Your task to perform on an android device: install app "Google Photos" Image 0: 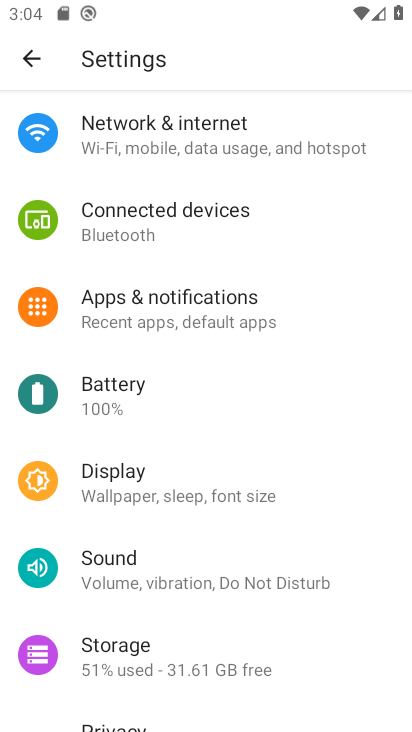
Step 0: press home button
Your task to perform on an android device: install app "Google Photos" Image 1: 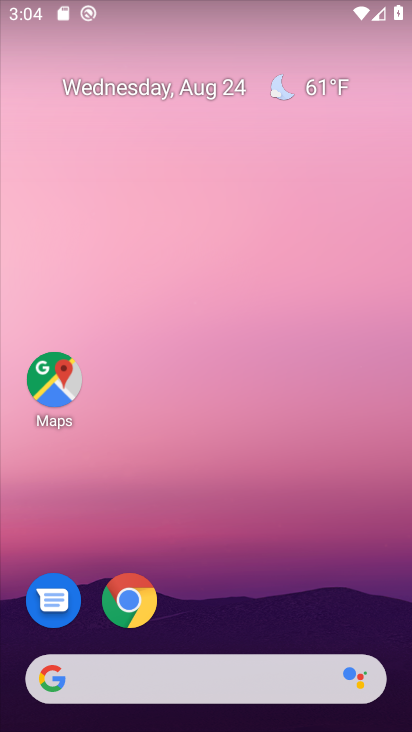
Step 1: drag from (248, 615) to (280, 66)
Your task to perform on an android device: install app "Google Photos" Image 2: 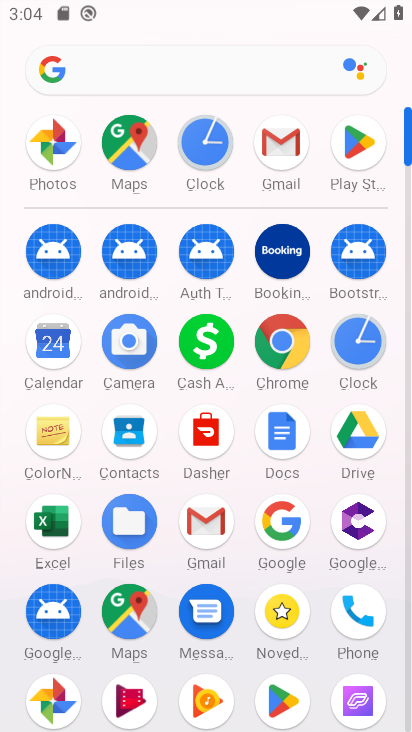
Step 2: click (363, 138)
Your task to perform on an android device: install app "Google Photos" Image 3: 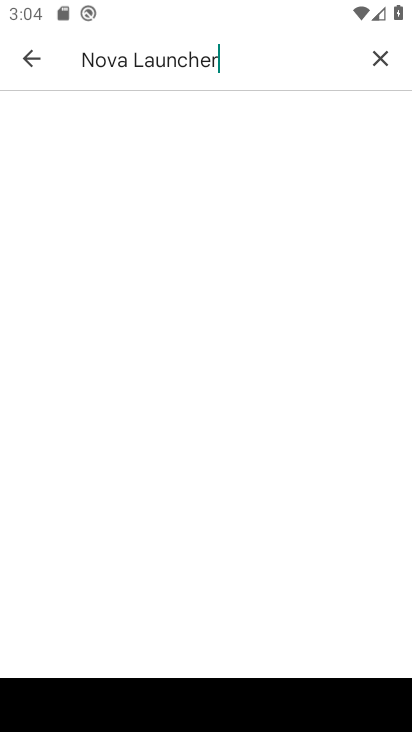
Step 3: click (376, 48)
Your task to perform on an android device: install app "Google Photos" Image 4: 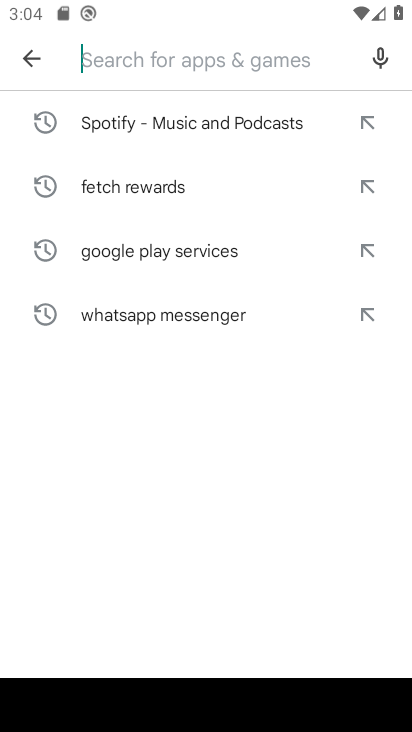
Step 4: click (106, 53)
Your task to perform on an android device: install app "Google Photos" Image 5: 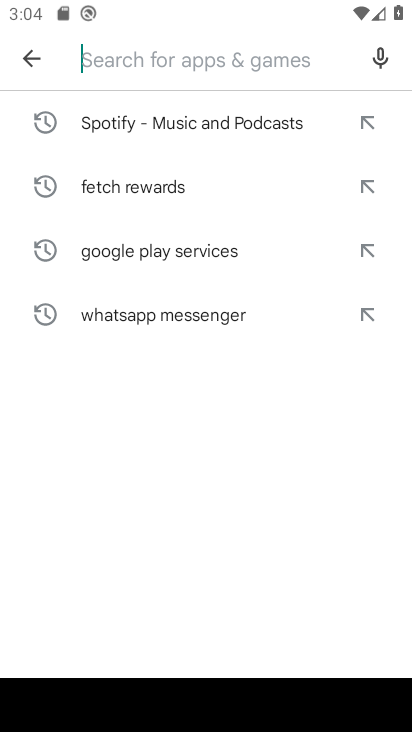
Step 5: click (89, 59)
Your task to perform on an android device: install app "Google Photos" Image 6: 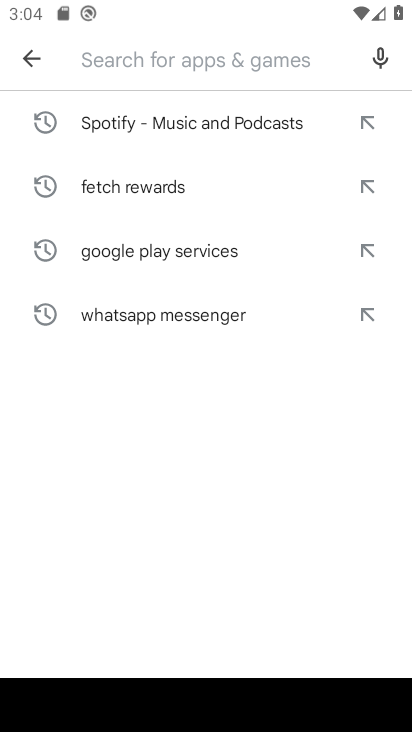
Step 6: type "Google Photos"
Your task to perform on an android device: install app "Google Photos" Image 7: 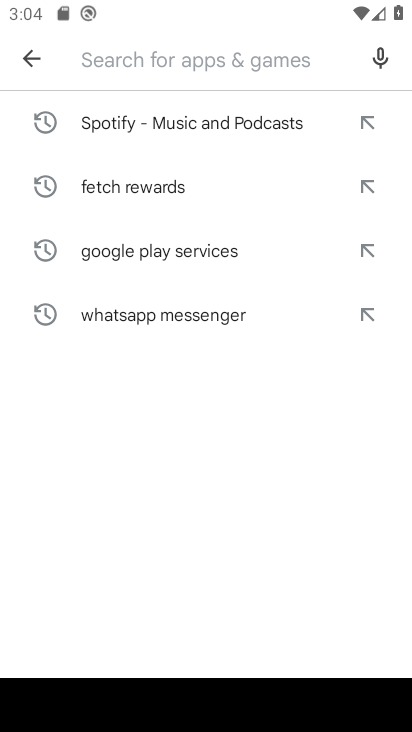
Step 7: click (148, 540)
Your task to perform on an android device: install app "Google Photos" Image 8: 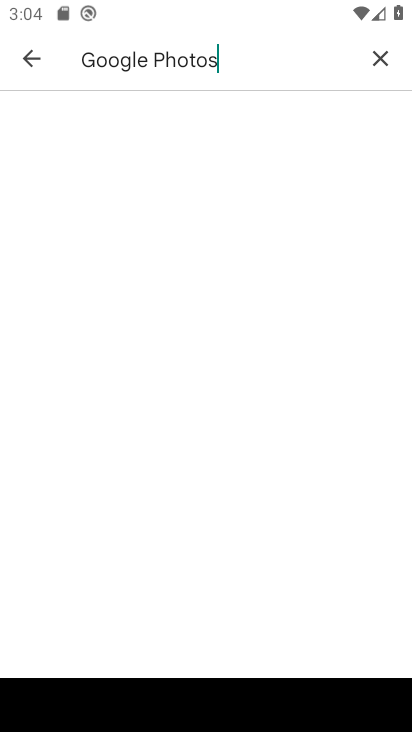
Step 8: task complete